Your task to perform on an android device: stop showing notifications on the lock screen Image 0: 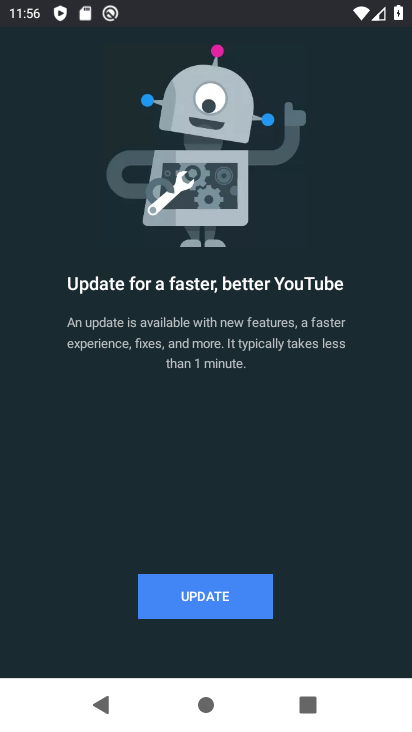
Step 0: press home button
Your task to perform on an android device: stop showing notifications on the lock screen Image 1: 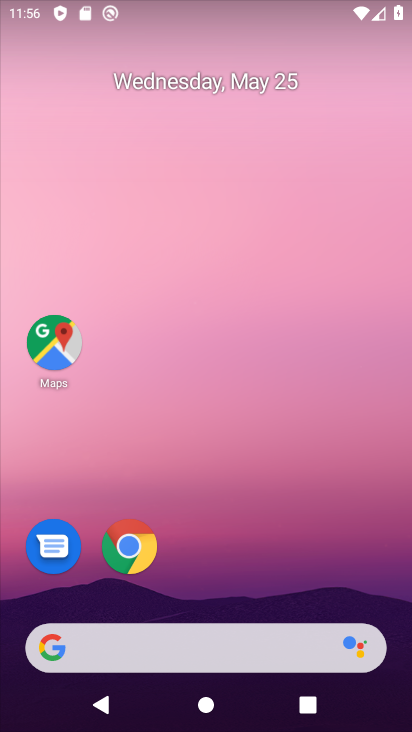
Step 1: drag from (183, 599) to (65, 22)
Your task to perform on an android device: stop showing notifications on the lock screen Image 2: 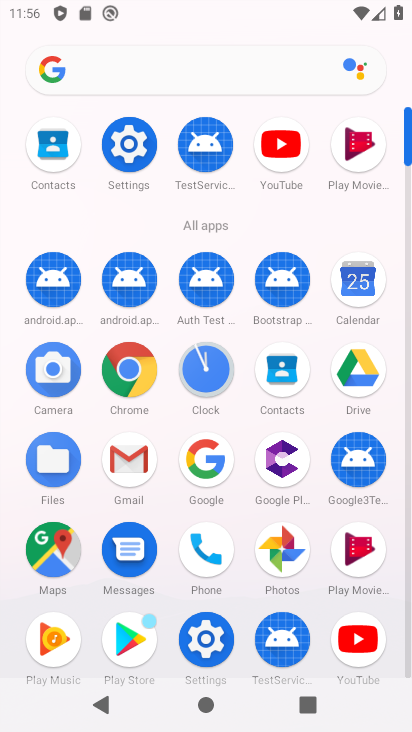
Step 2: click (149, 153)
Your task to perform on an android device: stop showing notifications on the lock screen Image 3: 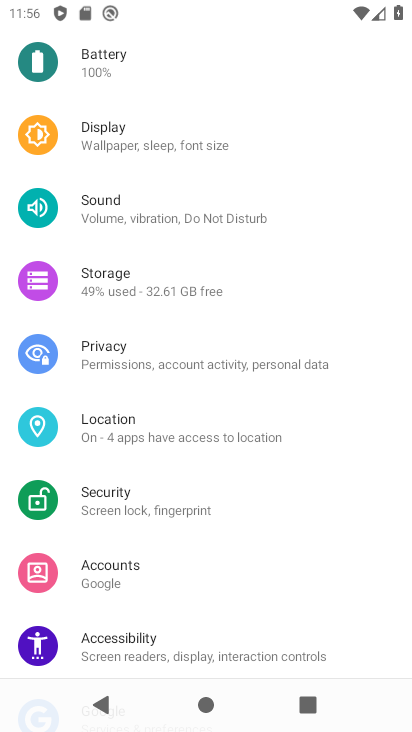
Step 3: drag from (174, 141) to (117, 658)
Your task to perform on an android device: stop showing notifications on the lock screen Image 4: 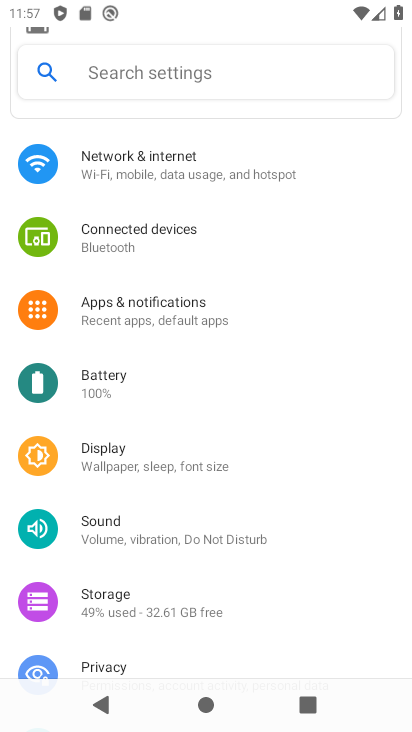
Step 4: click (142, 321)
Your task to perform on an android device: stop showing notifications on the lock screen Image 5: 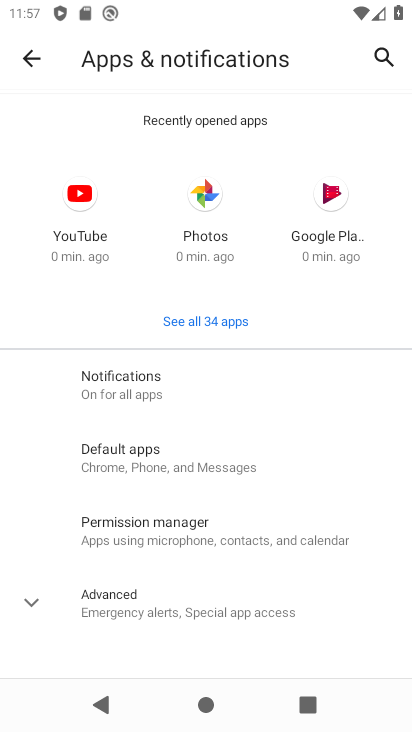
Step 5: click (141, 388)
Your task to perform on an android device: stop showing notifications on the lock screen Image 6: 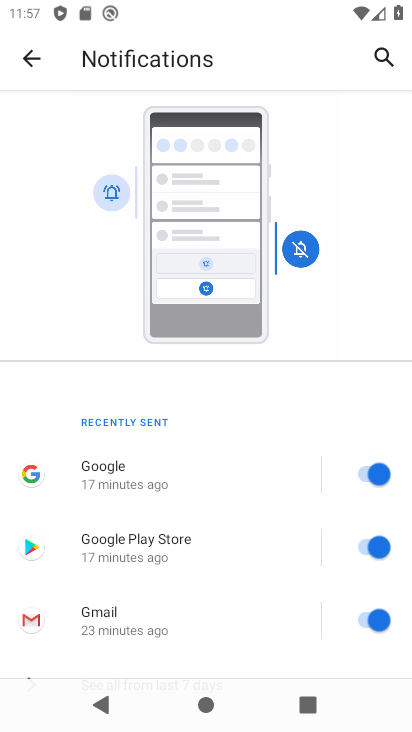
Step 6: drag from (154, 598) to (267, 77)
Your task to perform on an android device: stop showing notifications on the lock screen Image 7: 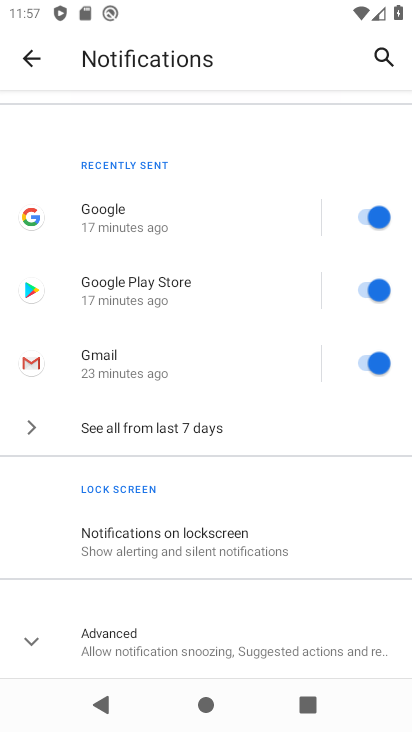
Step 7: click (183, 555)
Your task to perform on an android device: stop showing notifications on the lock screen Image 8: 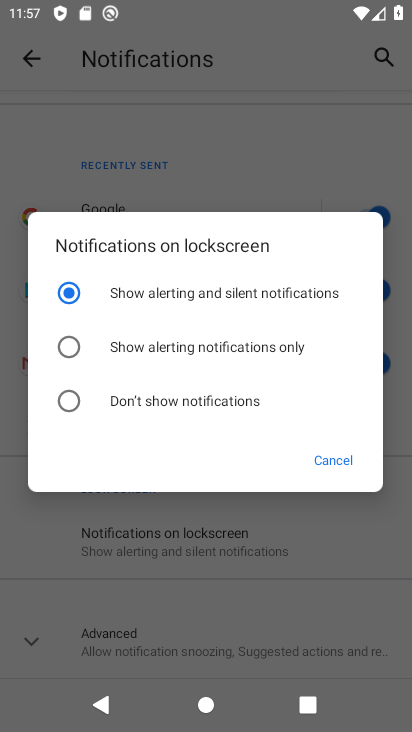
Step 8: click (182, 414)
Your task to perform on an android device: stop showing notifications on the lock screen Image 9: 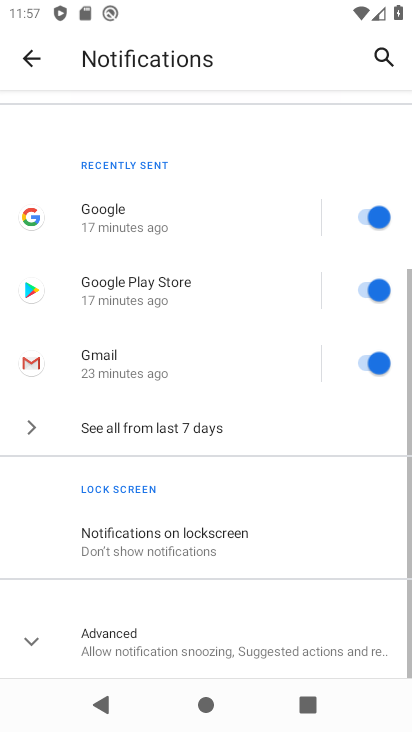
Step 9: task complete